Your task to perform on an android device: open a bookmark in the chrome app Image 0: 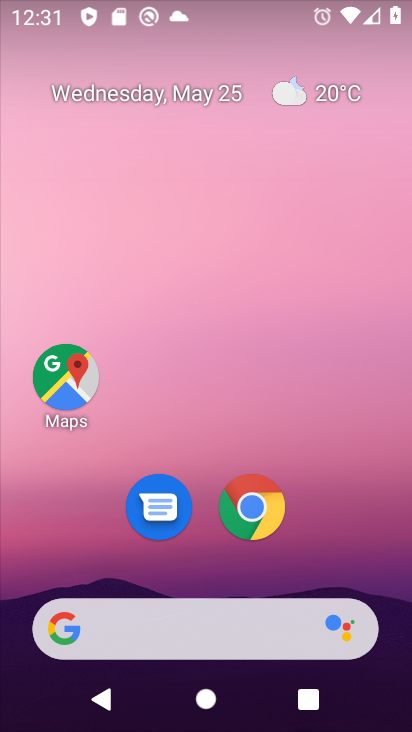
Step 0: drag from (351, 540) to (329, 146)
Your task to perform on an android device: open a bookmark in the chrome app Image 1: 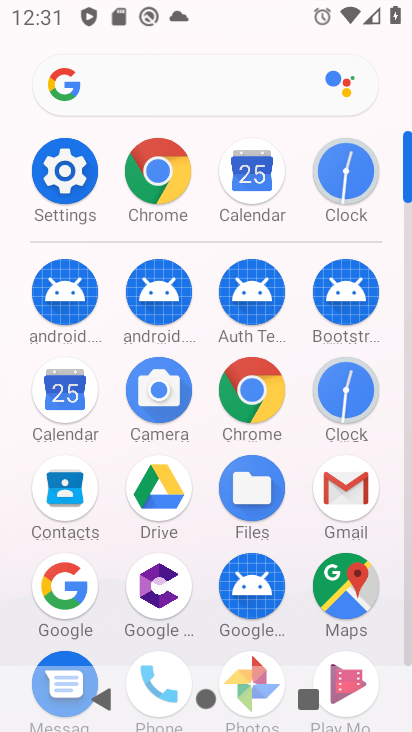
Step 1: click (242, 375)
Your task to perform on an android device: open a bookmark in the chrome app Image 2: 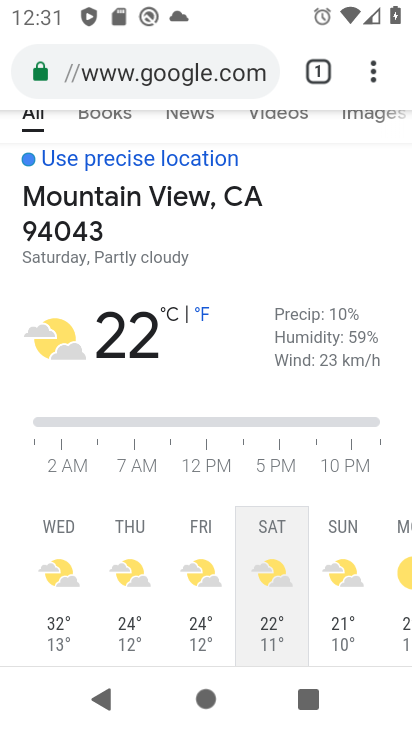
Step 2: task complete